Your task to perform on an android device: Open the stopwatch Image 0: 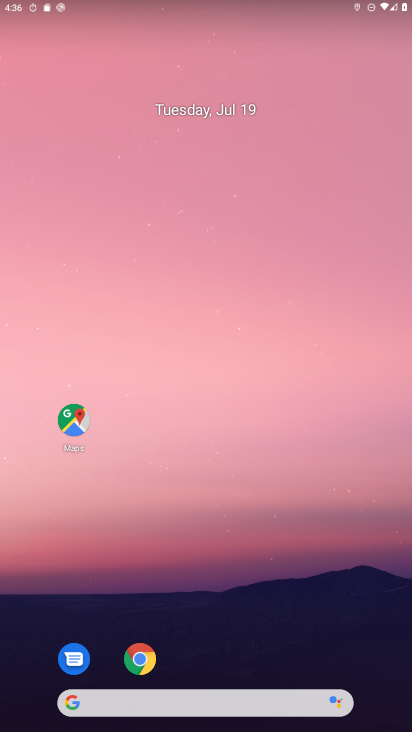
Step 0: drag from (254, 448) to (357, 0)
Your task to perform on an android device: Open the stopwatch Image 1: 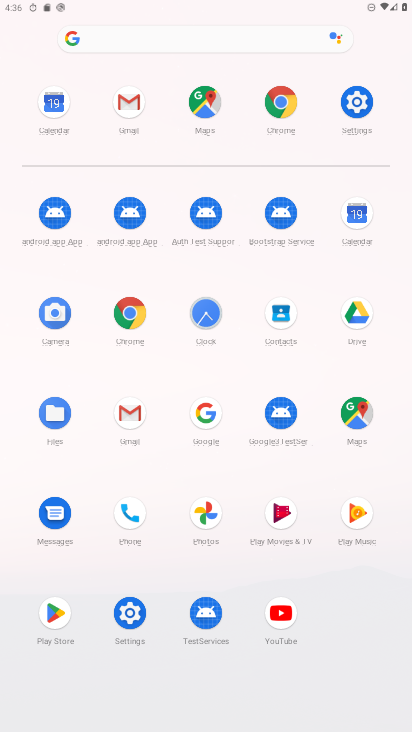
Step 1: click (198, 322)
Your task to perform on an android device: Open the stopwatch Image 2: 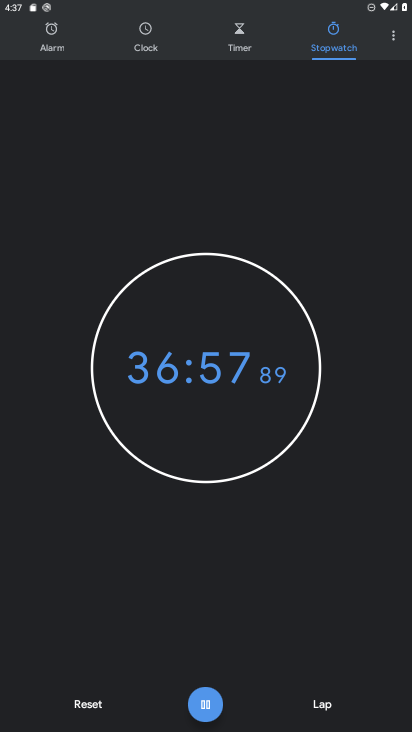
Step 2: task complete